Your task to perform on an android device: Go to sound settings Image 0: 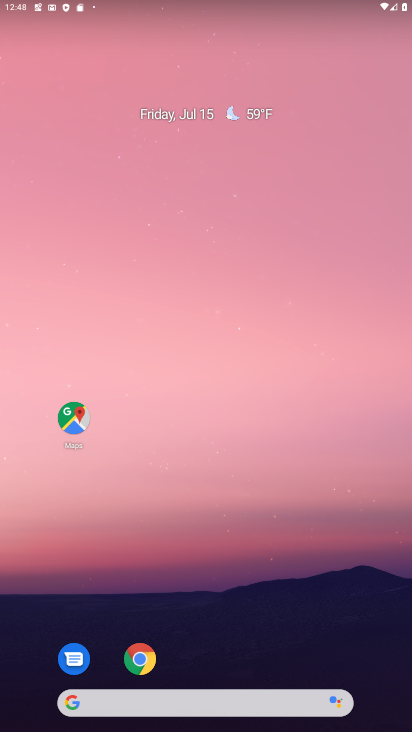
Step 0: drag from (203, 730) to (168, 311)
Your task to perform on an android device: Go to sound settings Image 1: 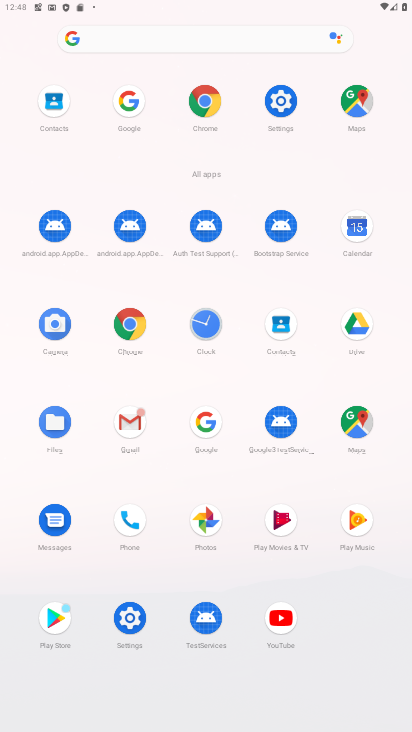
Step 1: click (276, 111)
Your task to perform on an android device: Go to sound settings Image 2: 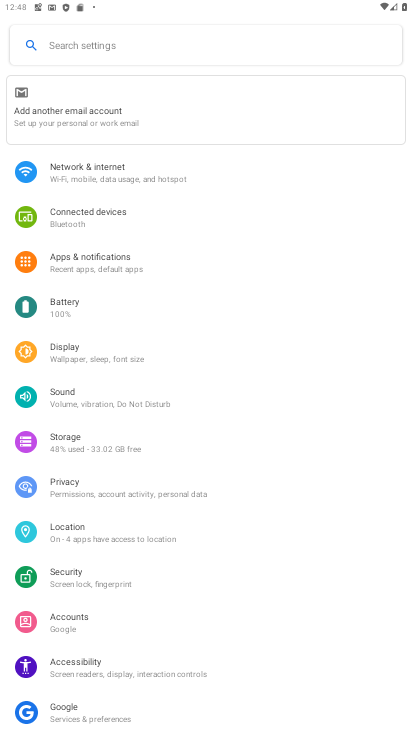
Step 2: click (80, 396)
Your task to perform on an android device: Go to sound settings Image 3: 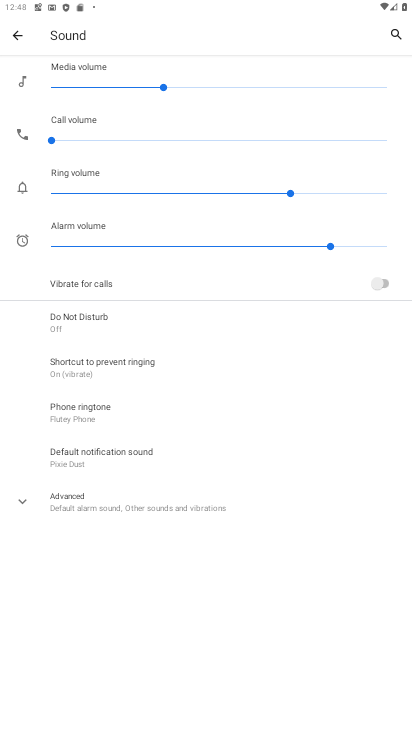
Step 3: task complete